Your task to perform on an android device: read, delete, or share a saved page in the chrome app Image 0: 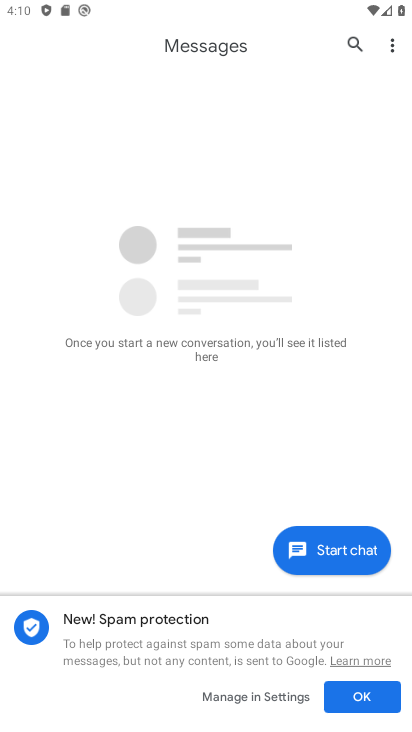
Step 0: press home button
Your task to perform on an android device: read, delete, or share a saved page in the chrome app Image 1: 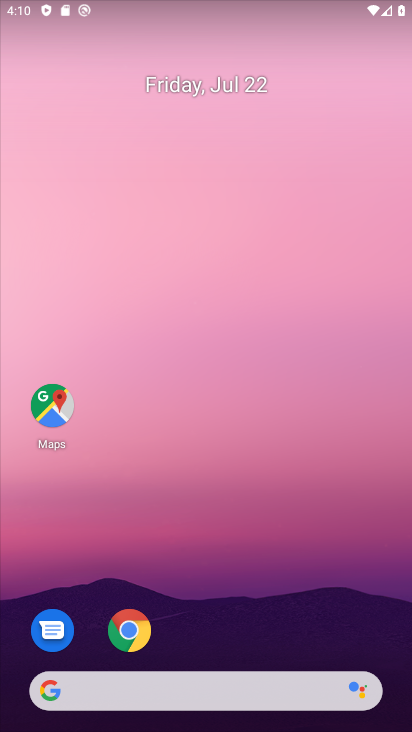
Step 1: click (127, 638)
Your task to perform on an android device: read, delete, or share a saved page in the chrome app Image 2: 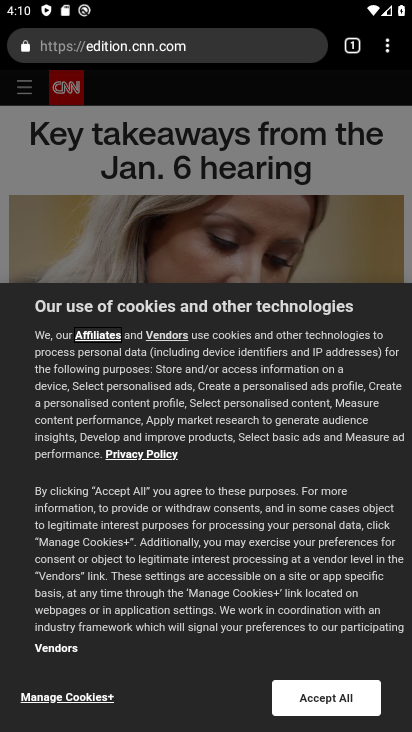
Step 2: click (396, 56)
Your task to perform on an android device: read, delete, or share a saved page in the chrome app Image 3: 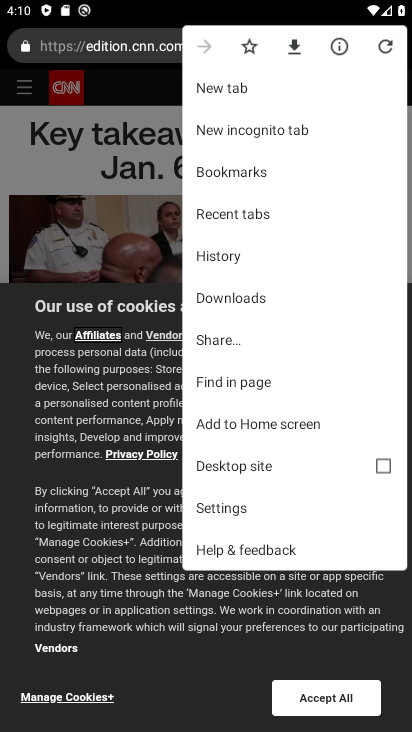
Step 3: task complete